Your task to perform on an android device: find snoozed emails in the gmail app Image 0: 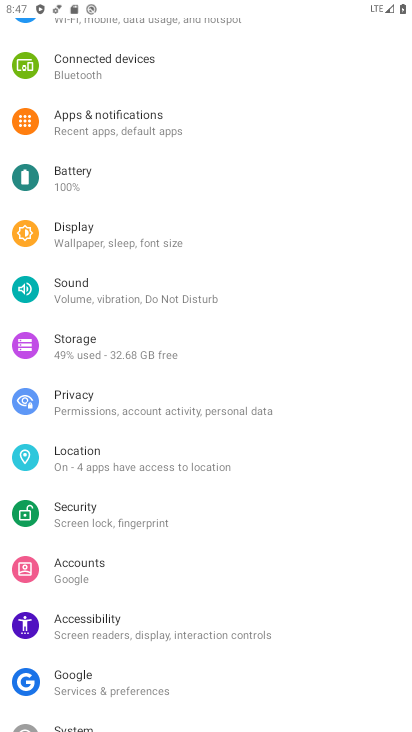
Step 0: press home button
Your task to perform on an android device: find snoozed emails in the gmail app Image 1: 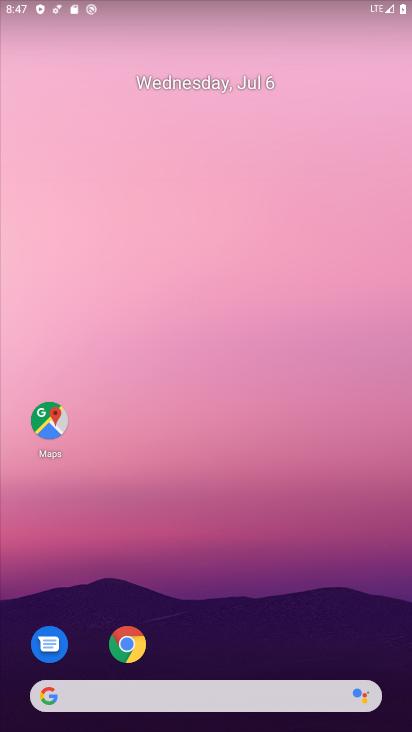
Step 1: drag from (213, 646) to (231, 312)
Your task to perform on an android device: find snoozed emails in the gmail app Image 2: 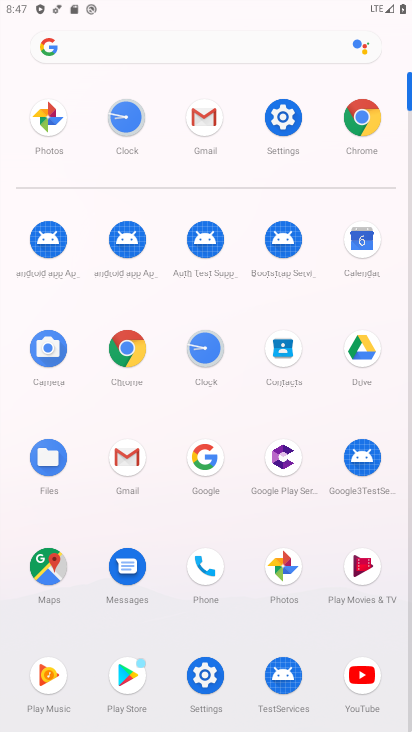
Step 2: click (217, 142)
Your task to perform on an android device: find snoozed emails in the gmail app Image 3: 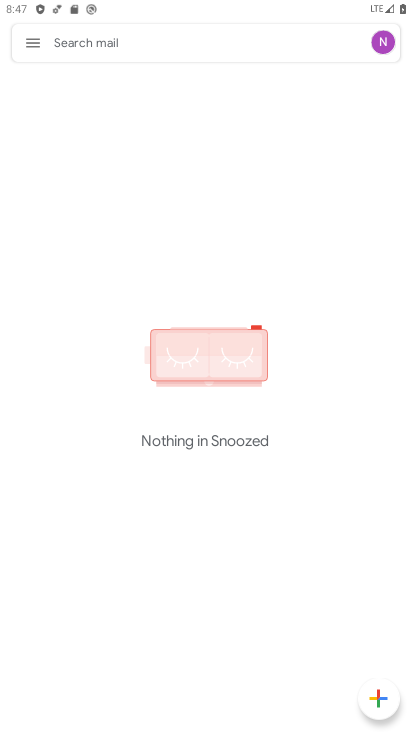
Step 3: click (16, 37)
Your task to perform on an android device: find snoozed emails in the gmail app Image 4: 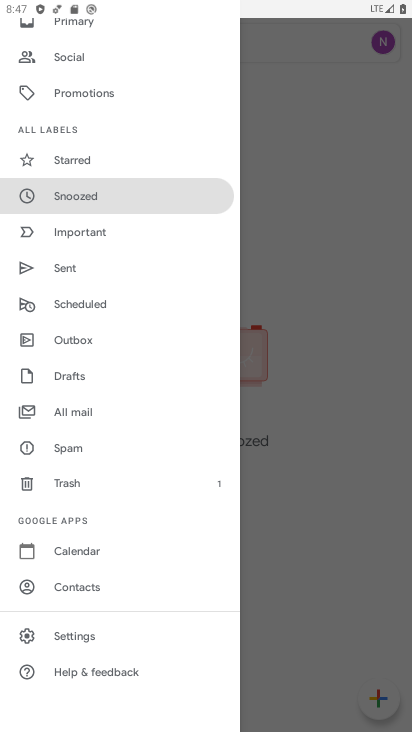
Step 4: click (109, 204)
Your task to perform on an android device: find snoozed emails in the gmail app Image 5: 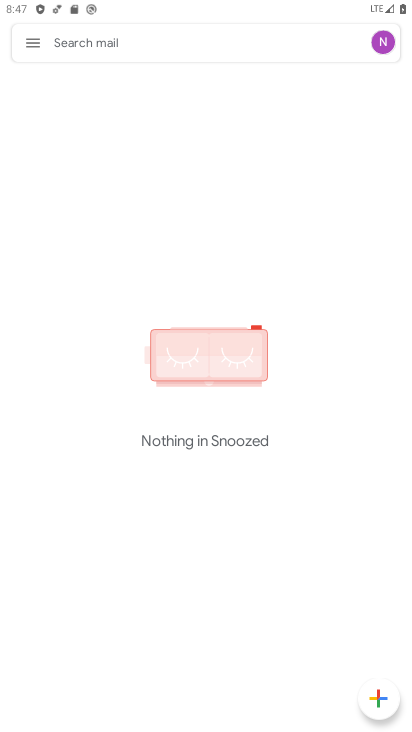
Step 5: task complete